Your task to perform on an android device: star an email in the gmail app Image 0: 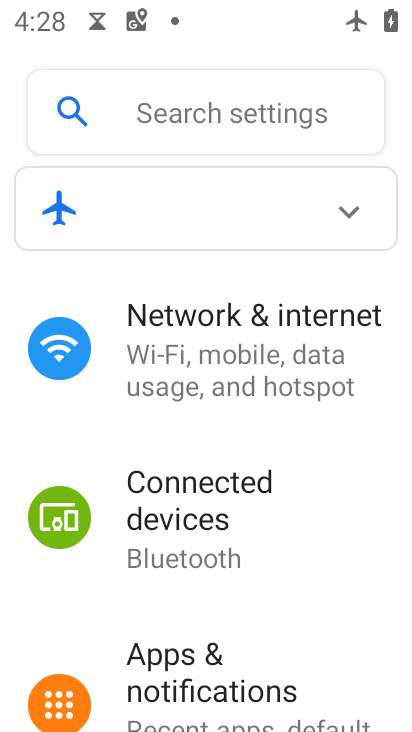
Step 0: press home button
Your task to perform on an android device: star an email in the gmail app Image 1: 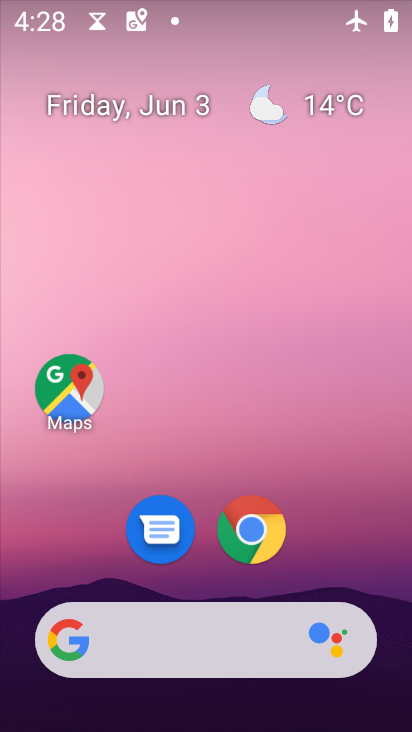
Step 1: drag from (336, 553) to (330, 54)
Your task to perform on an android device: star an email in the gmail app Image 2: 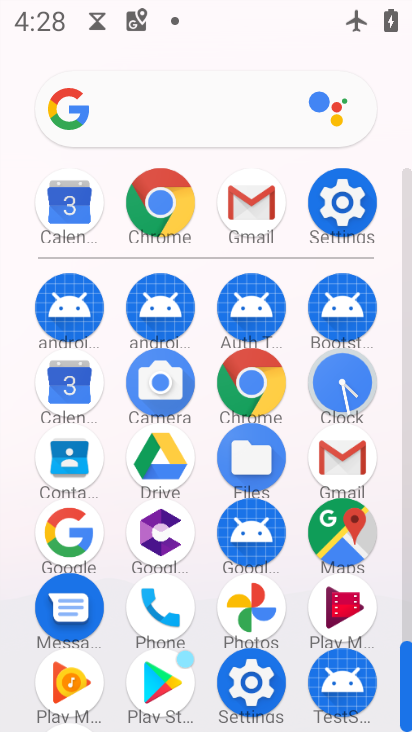
Step 2: click (250, 211)
Your task to perform on an android device: star an email in the gmail app Image 3: 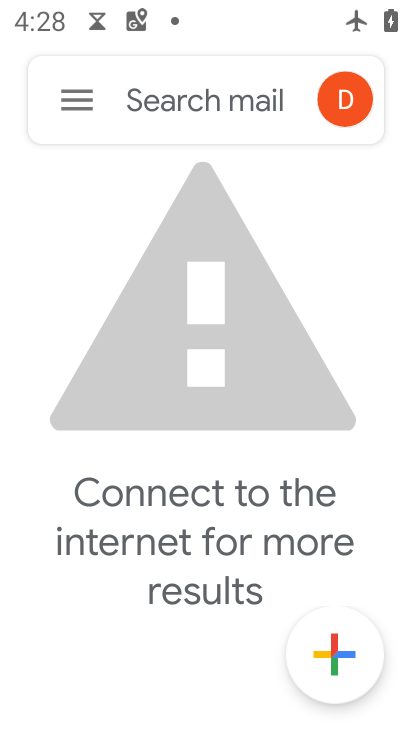
Step 3: click (65, 98)
Your task to perform on an android device: star an email in the gmail app Image 4: 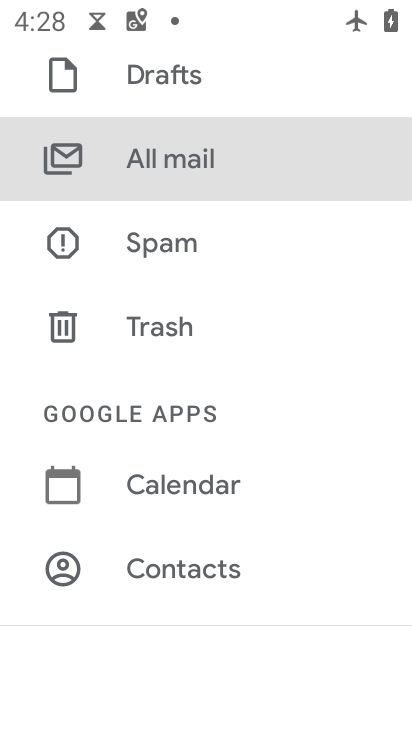
Step 4: drag from (237, 161) to (201, 653)
Your task to perform on an android device: star an email in the gmail app Image 5: 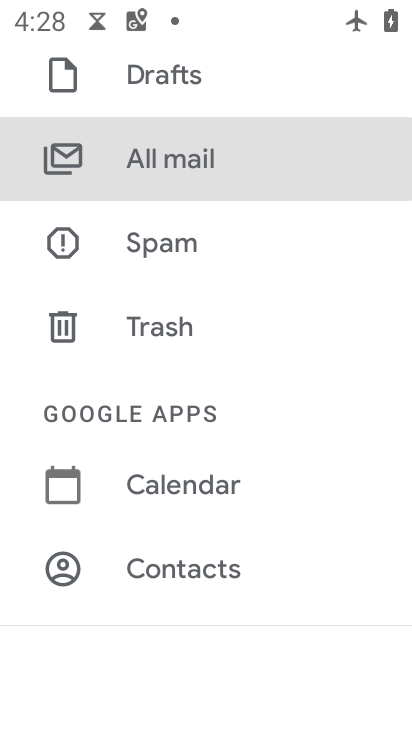
Step 5: click (169, 168)
Your task to perform on an android device: star an email in the gmail app Image 6: 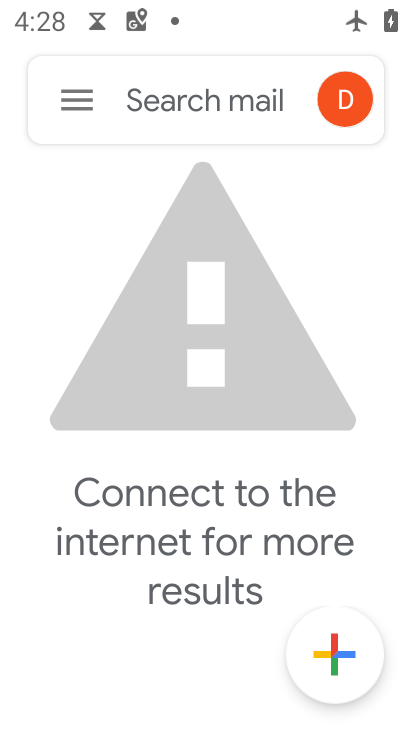
Step 6: task complete